Your task to perform on an android device: show emergency info Image 0: 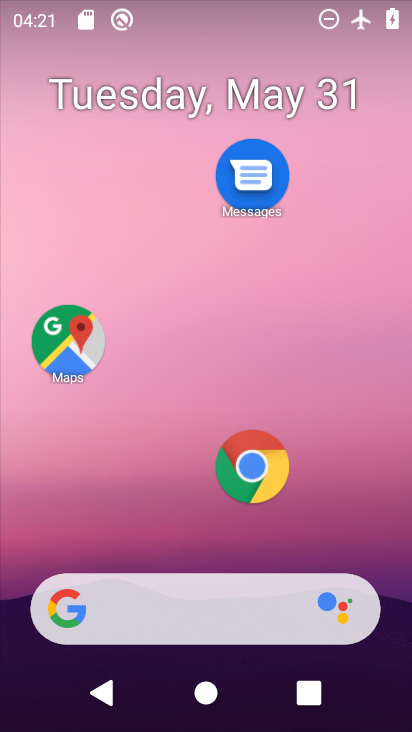
Step 0: drag from (148, 519) to (188, 109)
Your task to perform on an android device: show emergency info Image 1: 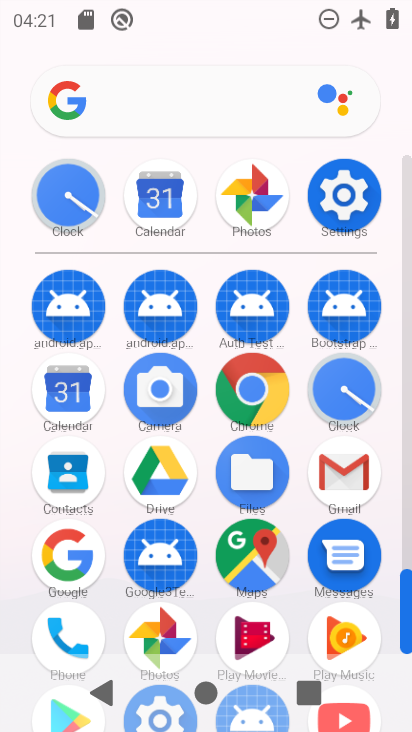
Step 1: click (344, 201)
Your task to perform on an android device: show emergency info Image 2: 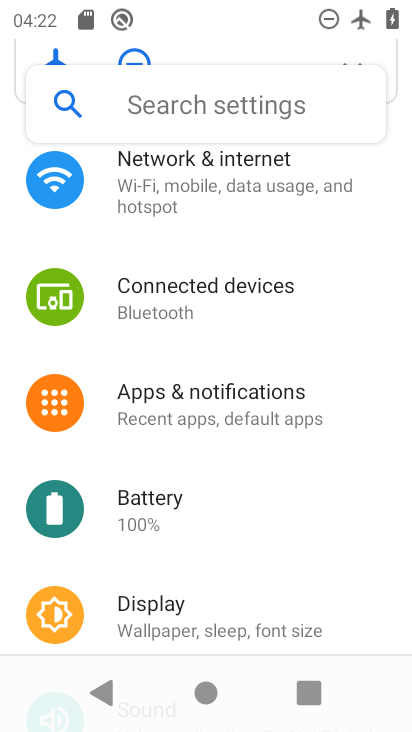
Step 2: drag from (185, 625) to (291, 125)
Your task to perform on an android device: show emergency info Image 3: 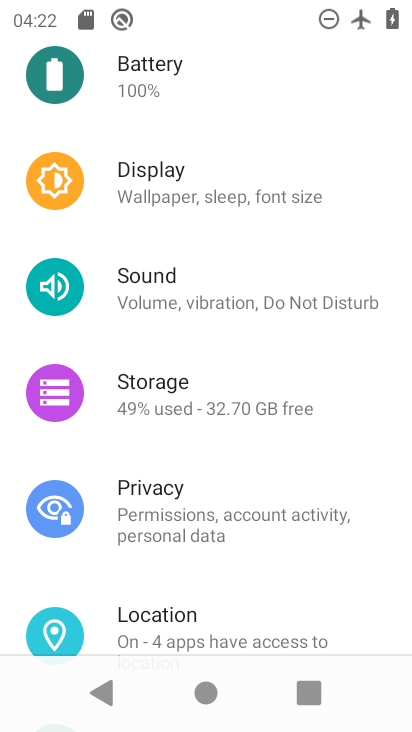
Step 3: drag from (266, 634) to (342, 9)
Your task to perform on an android device: show emergency info Image 4: 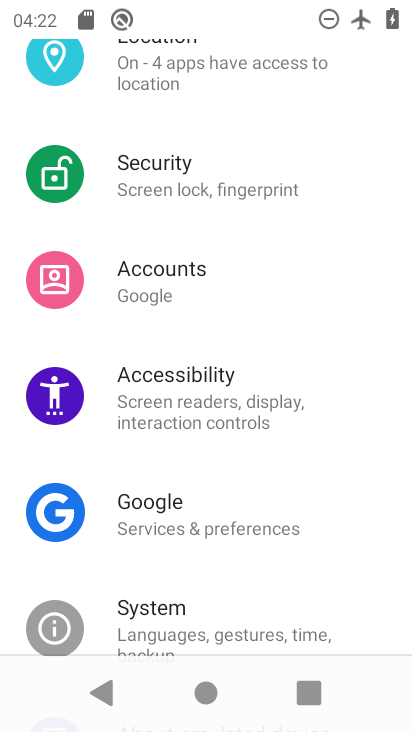
Step 4: drag from (158, 635) to (304, 43)
Your task to perform on an android device: show emergency info Image 5: 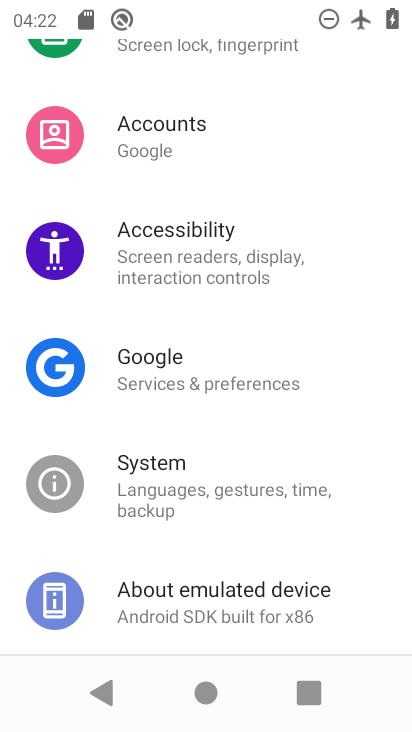
Step 5: click (170, 604)
Your task to perform on an android device: show emergency info Image 6: 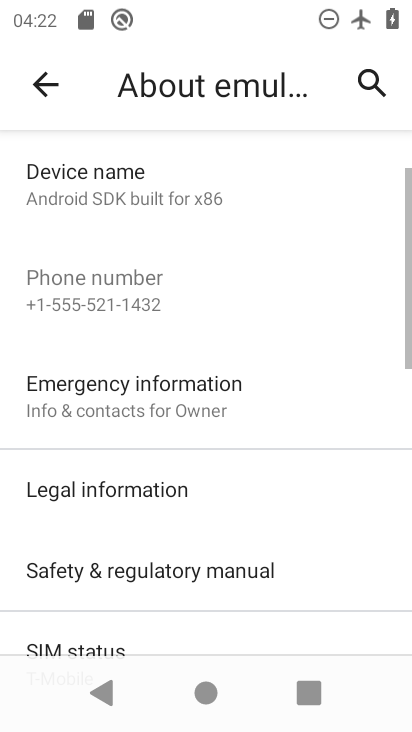
Step 6: click (137, 400)
Your task to perform on an android device: show emergency info Image 7: 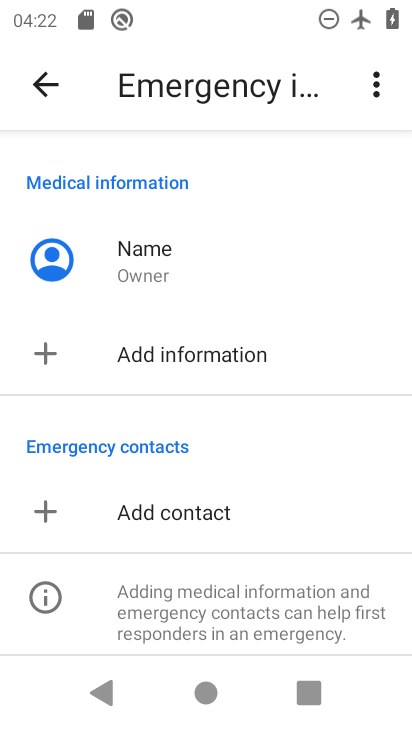
Step 7: task complete